Your task to perform on an android device: Turn off the flashlight Image 0: 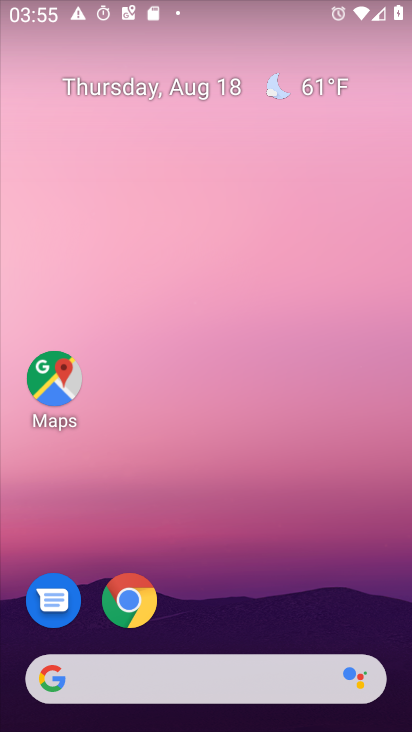
Step 0: press home button
Your task to perform on an android device: Turn off the flashlight Image 1: 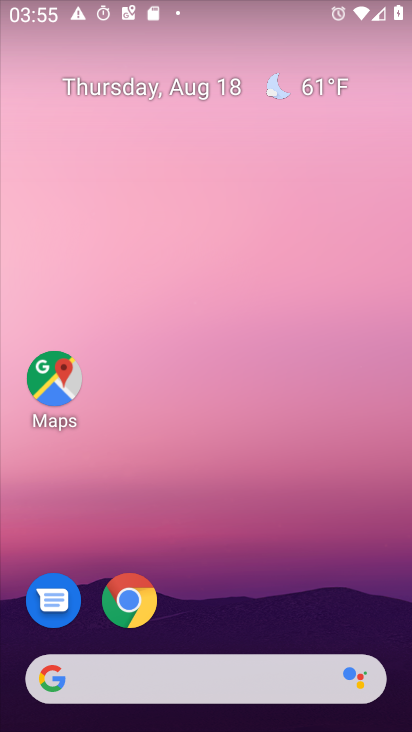
Step 1: task complete